Your task to perform on an android device: snooze an email in the gmail app Image 0: 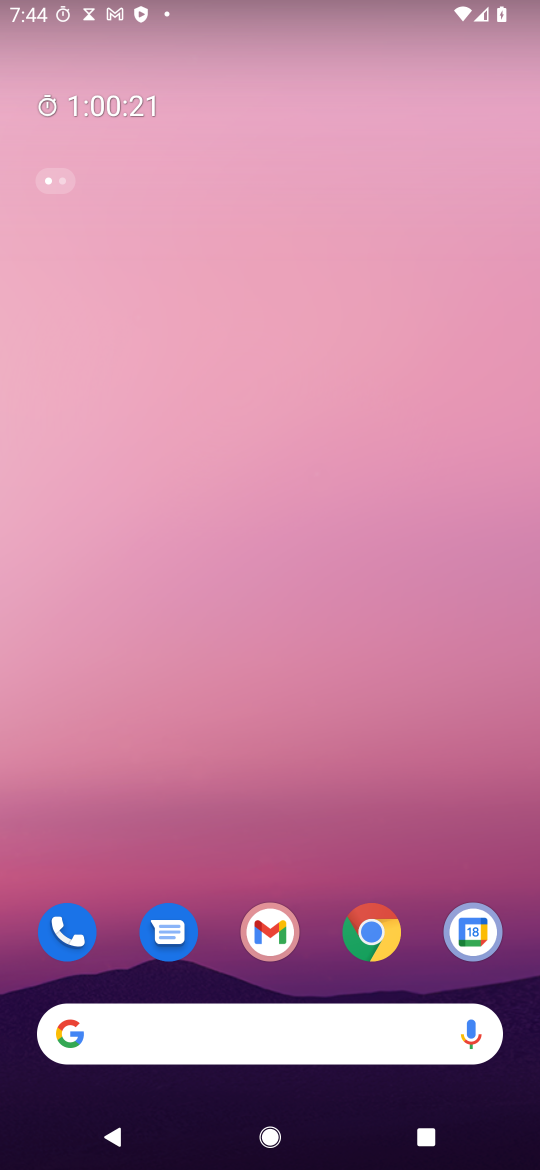
Step 0: drag from (371, 836) to (396, 96)
Your task to perform on an android device: snooze an email in the gmail app Image 1: 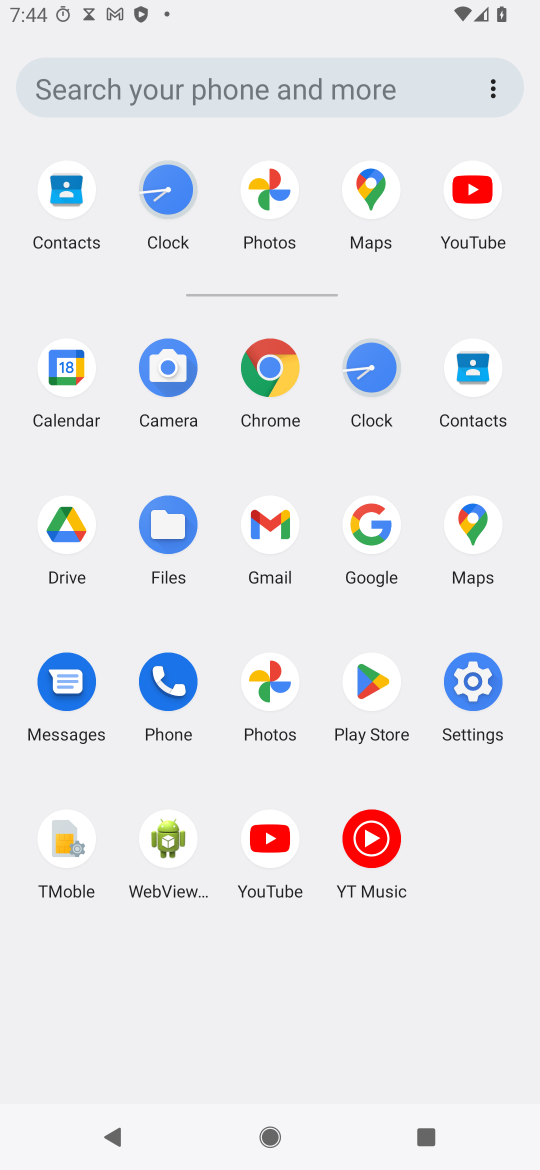
Step 1: click (274, 508)
Your task to perform on an android device: snooze an email in the gmail app Image 2: 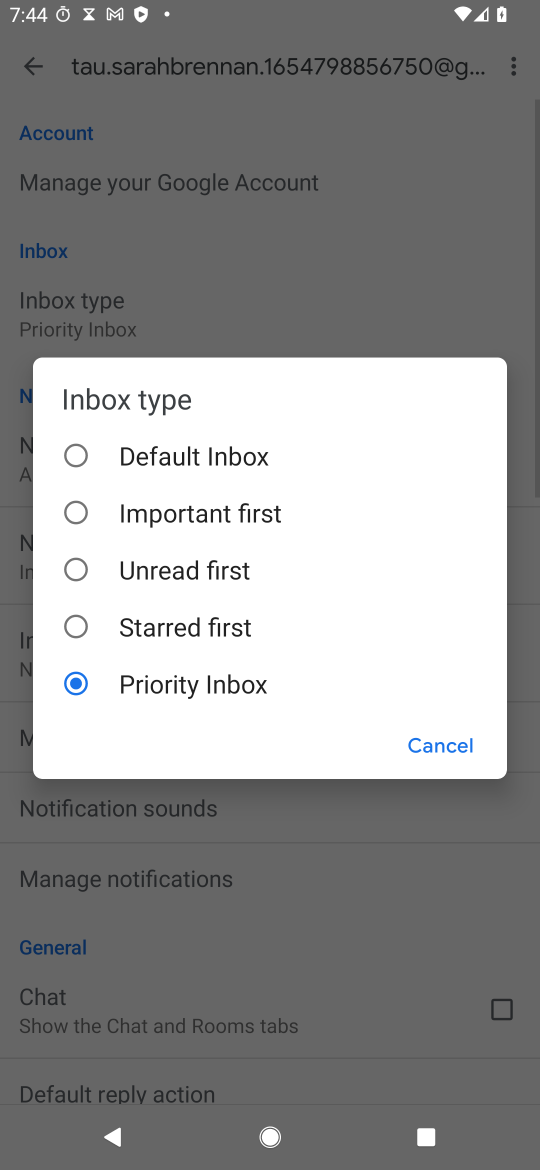
Step 2: click (459, 737)
Your task to perform on an android device: snooze an email in the gmail app Image 3: 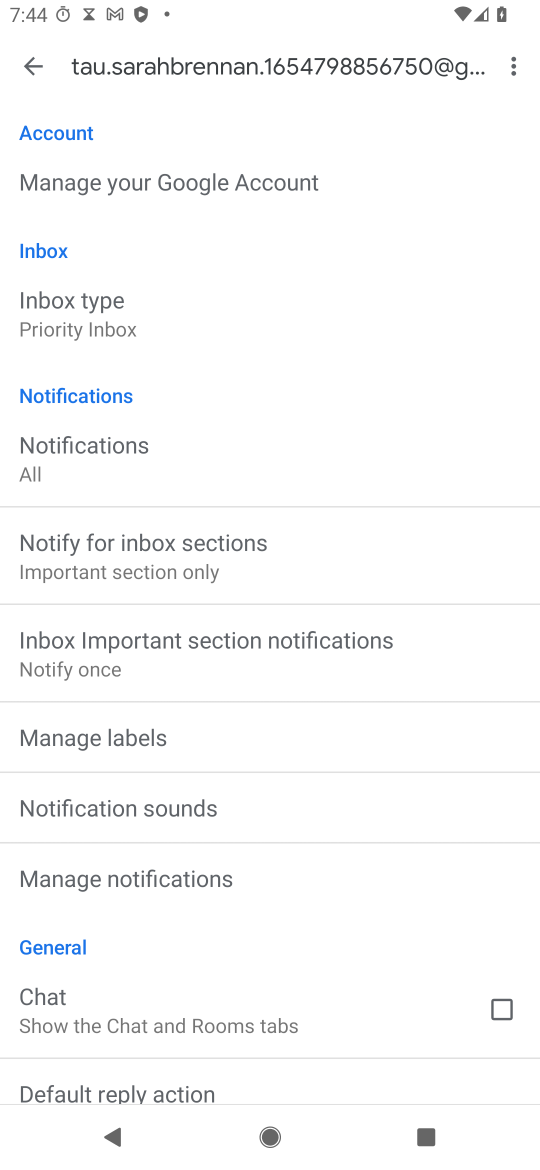
Step 3: task complete